Your task to perform on an android device: change notifications settings Image 0: 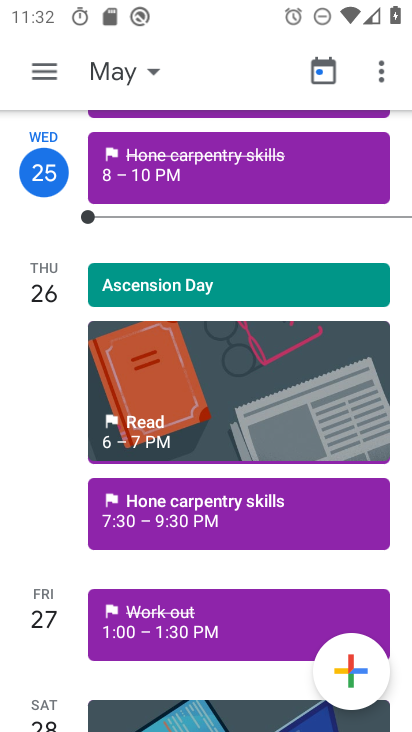
Step 0: press home button
Your task to perform on an android device: change notifications settings Image 1: 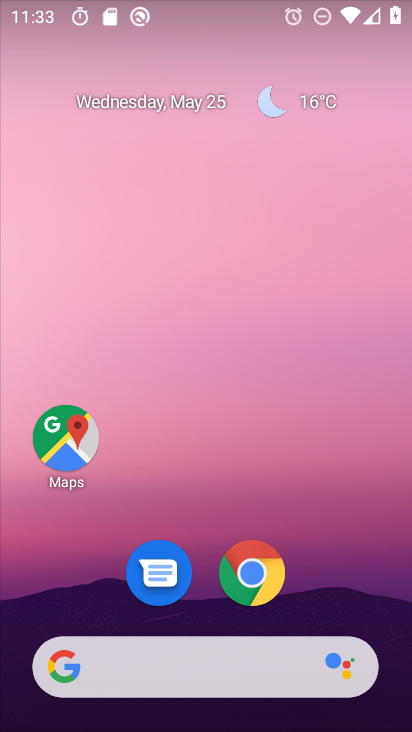
Step 1: drag from (353, 596) to (410, 14)
Your task to perform on an android device: change notifications settings Image 2: 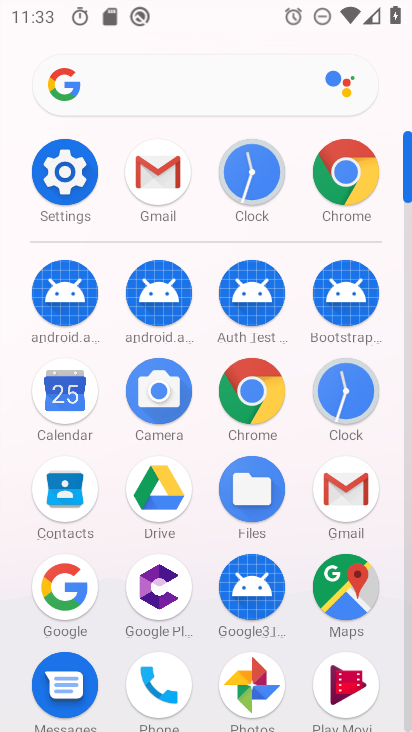
Step 2: click (62, 174)
Your task to perform on an android device: change notifications settings Image 3: 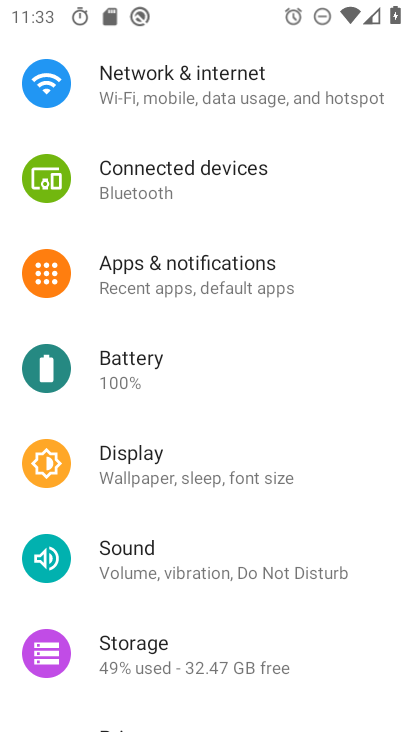
Step 3: click (215, 288)
Your task to perform on an android device: change notifications settings Image 4: 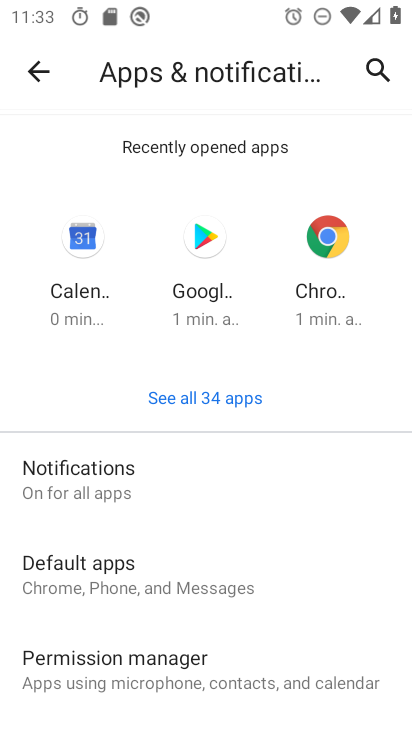
Step 4: click (65, 479)
Your task to perform on an android device: change notifications settings Image 5: 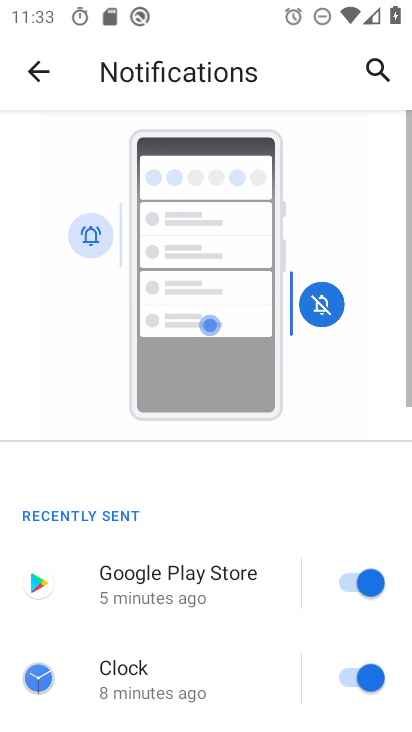
Step 5: drag from (173, 484) to (200, 141)
Your task to perform on an android device: change notifications settings Image 6: 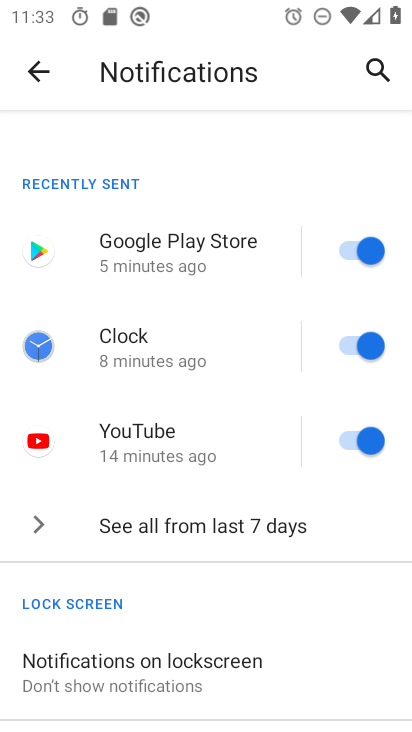
Step 6: drag from (202, 571) to (211, 293)
Your task to perform on an android device: change notifications settings Image 7: 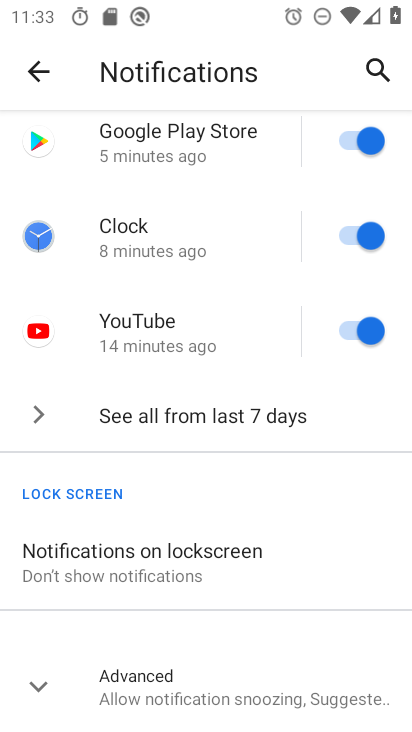
Step 7: click (160, 417)
Your task to perform on an android device: change notifications settings Image 8: 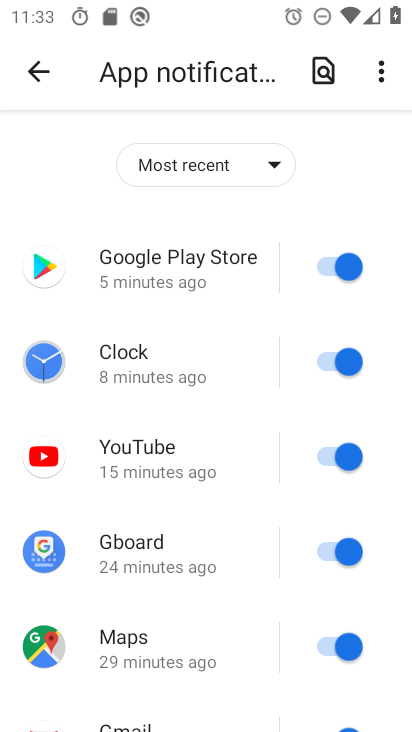
Step 8: click (275, 169)
Your task to perform on an android device: change notifications settings Image 9: 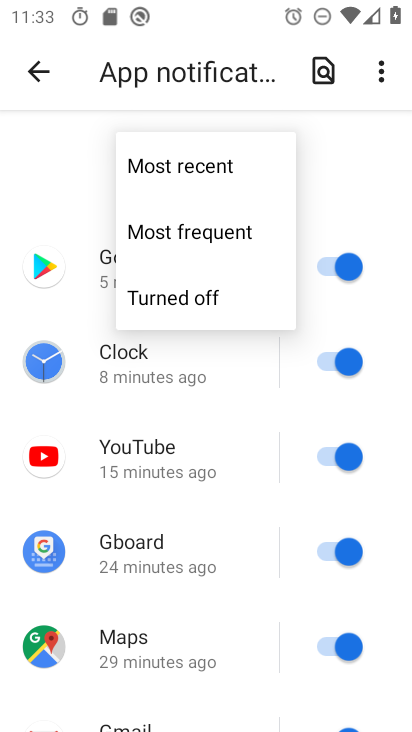
Step 9: click (215, 236)
Your task to perform on an android device: change notifications settings Image 10: 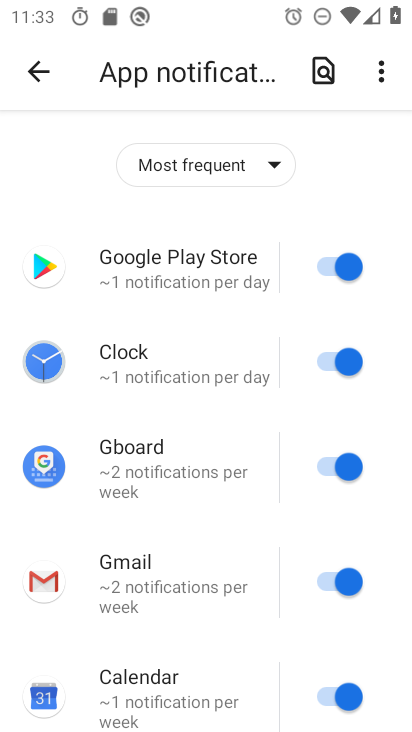
Step 10: task complete